Your task to perform on an android device: What's the weather today? Image 0: 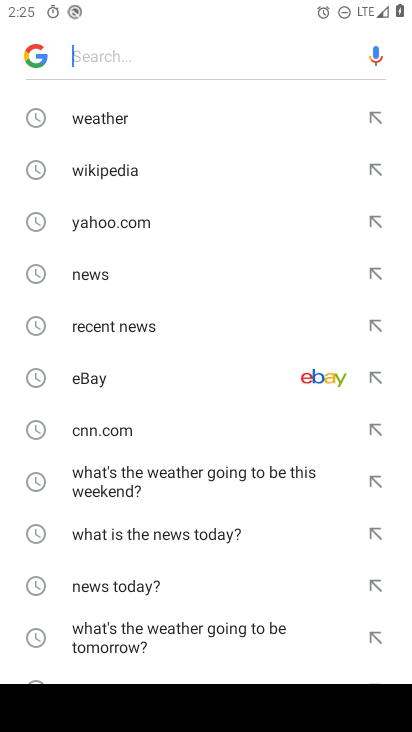
Step 0: drag from (140, 603) to (178, 253)
Your task to perform on an android device: What's the weather today? Image 1: 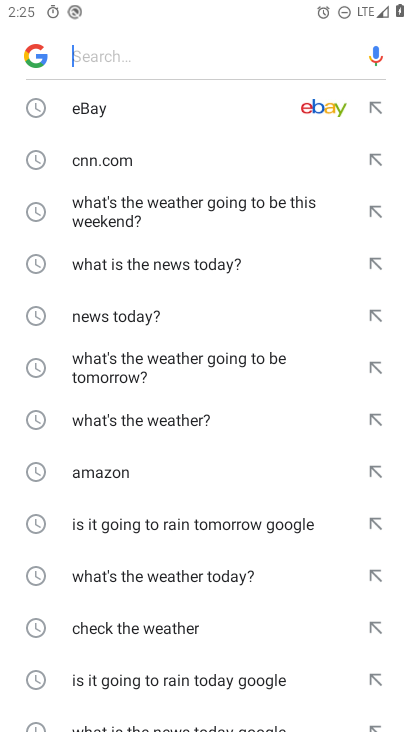
Step 1: click (161, 581)
Your task to perform on an android device: What's the weather today? Image 2: 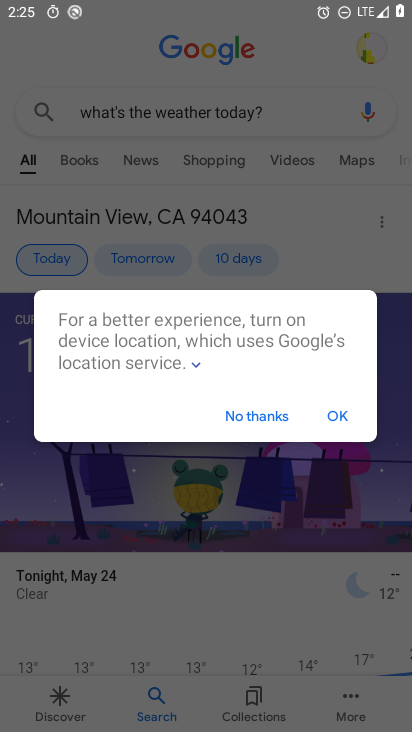
Step 2: click (335, 413)
Your task to perform on an android device: What's the weather today? Image 3: 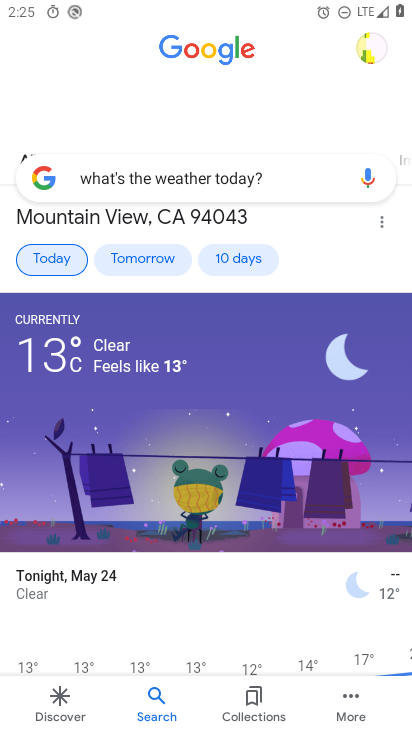
Step 3: task complete